Your task to perform on an android device: turn on showing notifications on the lock screen Image 0: 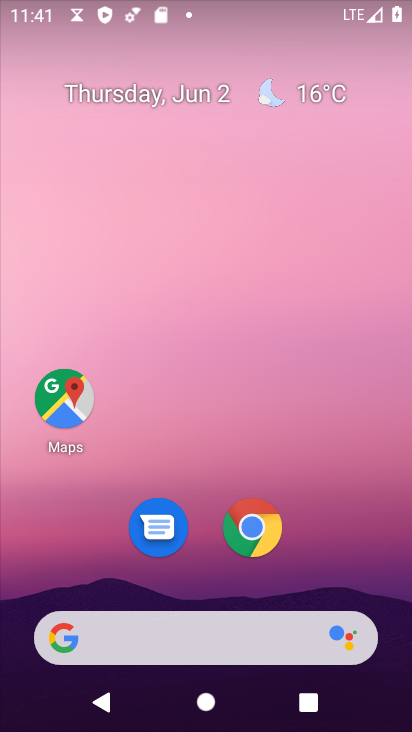
Step 0: drag from (173, 636) to (137, 44)
Your task to perform on an android device: turn on showing notifications on the lock screen Image 1: 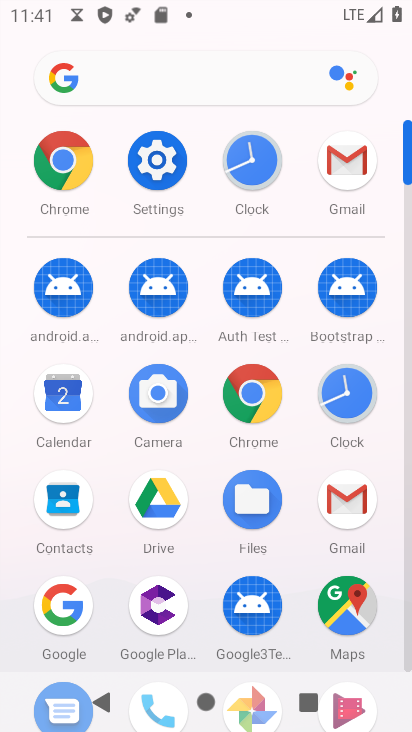
Step 1: click (148, 176)
Your task to perform on an android device: turn on showing notifications on the lock screen Image 2: 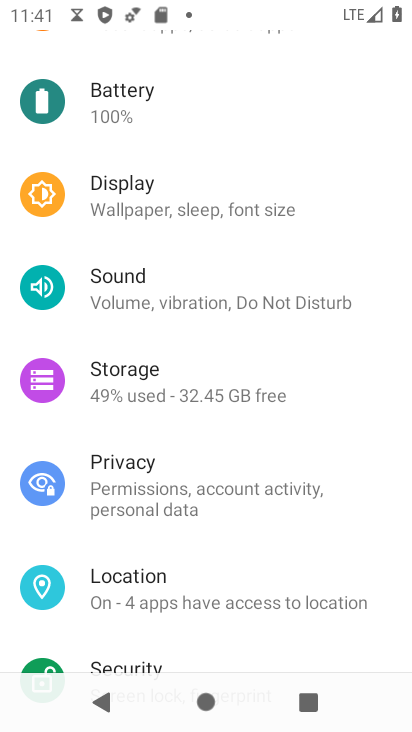
Step 2: drag from (151, 215) to (135, 570)
Your task to perform on an android device: turn on showing notifications on the lock screen Image 3: 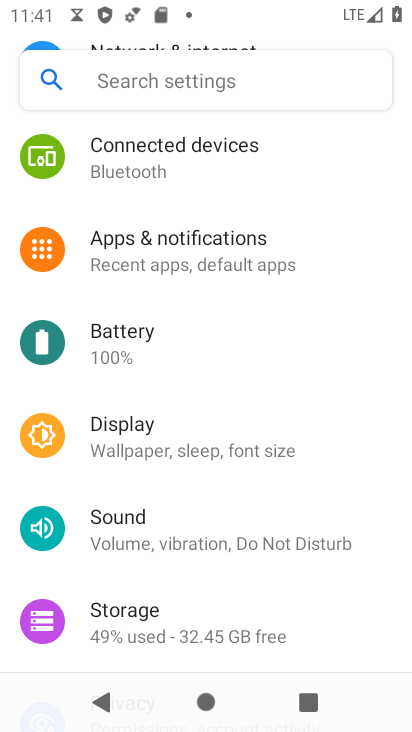
Step 3: click (180, 230)
Your task to perform on an android device: turn on showing notifications on the lock screen Image 4: 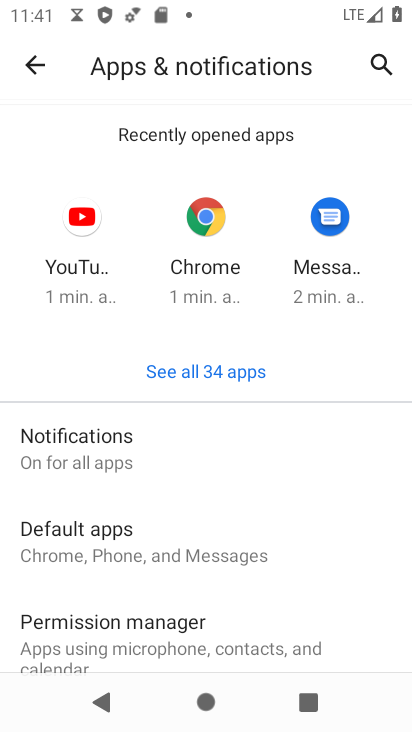
Step 4: click (103, 463)
Your task to perform on an android device: turn on showing notifications on the lock screen Image 5: 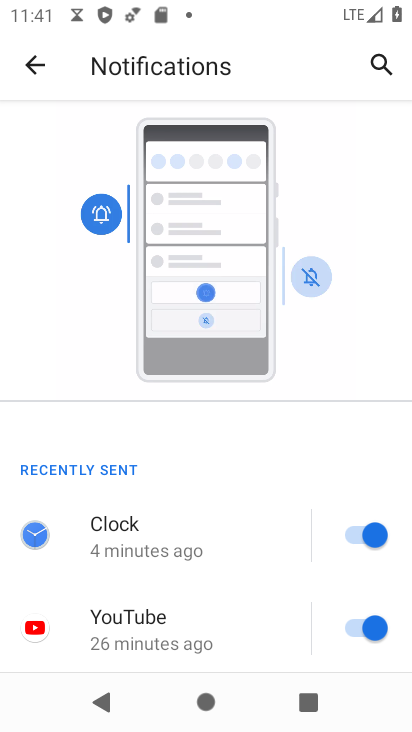
Step 5: drag from (152, 622) to (21, 16)
Your task to perform on an android device: turn on showing notifications on the lock screen Image 6: 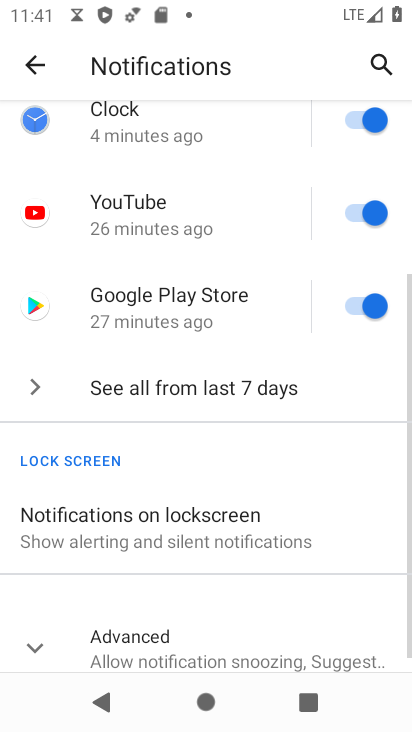
Step 6: click (177, 528)
Your task to perform on an android device: turn on showing notifications on the lock screen Image 7: 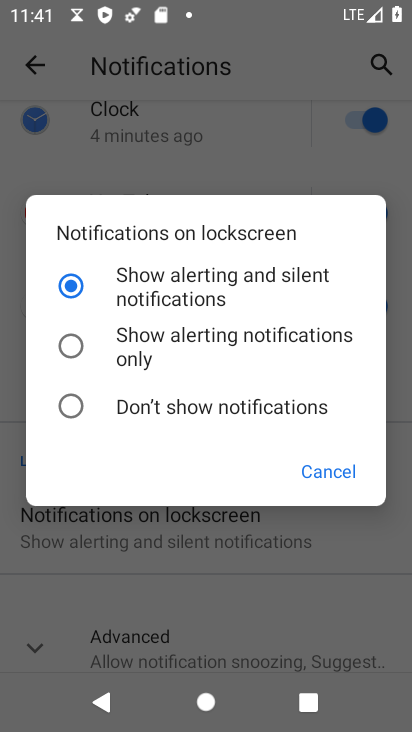
Step 7: click (220, 278)
Your task to perform on an android device: turn on showing notifications on the lock screen Image 8: 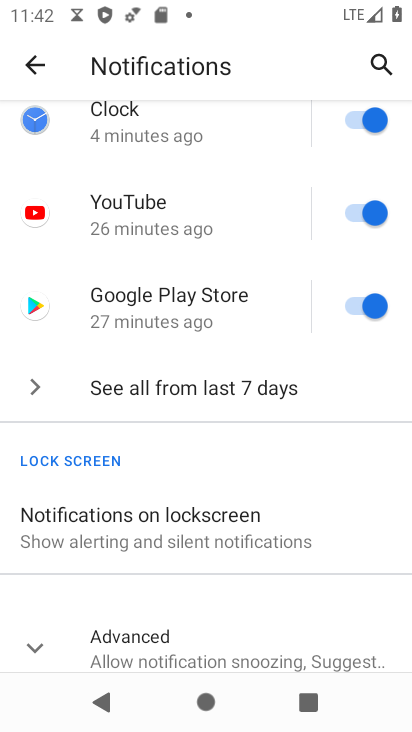
Step 8: task complete